Your task to perform on an android device: turn off priority inbox in the gmail app Image 0: 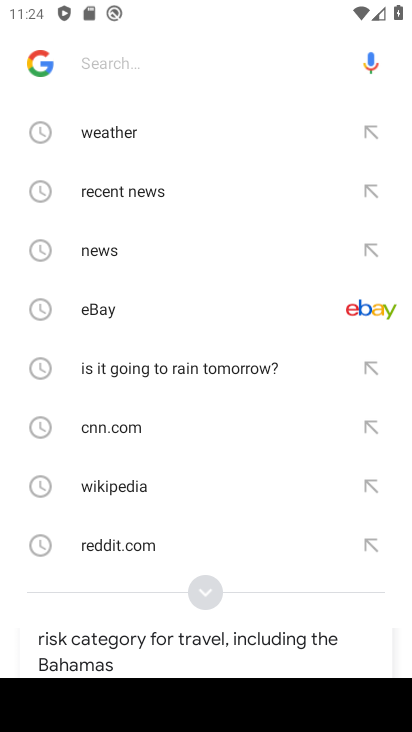
Step 0: press home button
Your task to perform on an android device: turn off priority inbox in the gmail app Image 1: 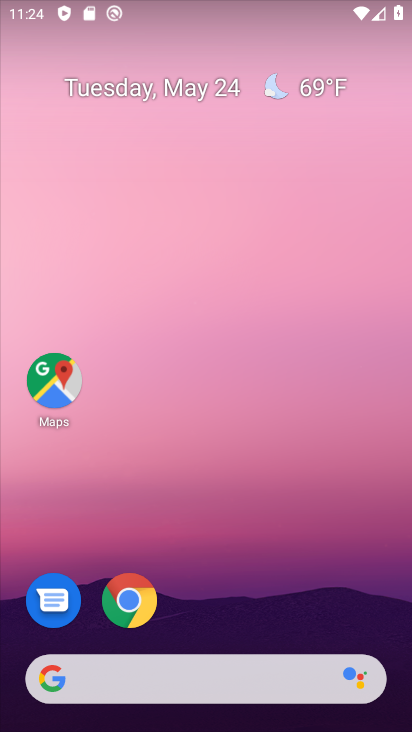
Step 1: drag from (385, 630) to (379, 198)
Your task to perform on an android device: turn off priority inbox in the gmail app Image 2: 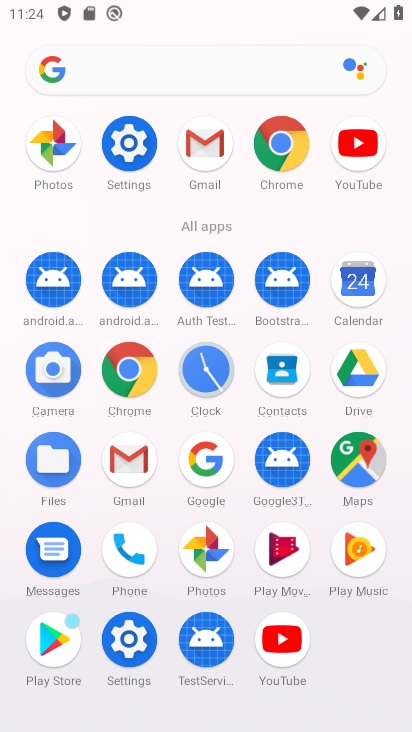
Step 2: click (128, 467)
Your task to perform on an android device: turn off priority inbox in the gmail app Image 3: 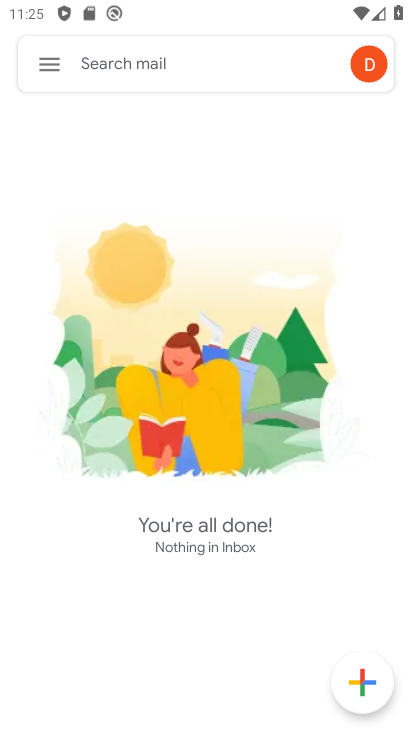
Step 3: click (53, 68)
Your task to perform on an android device: turn off priority inbox in the gmail app Image 4: 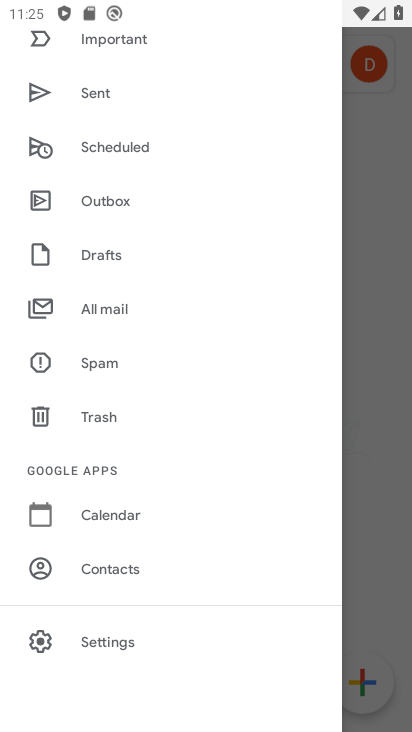
Step 4: click (186, 645)
Your task to perform on an android device: turn off priority inbox in the gmail app Image 5: 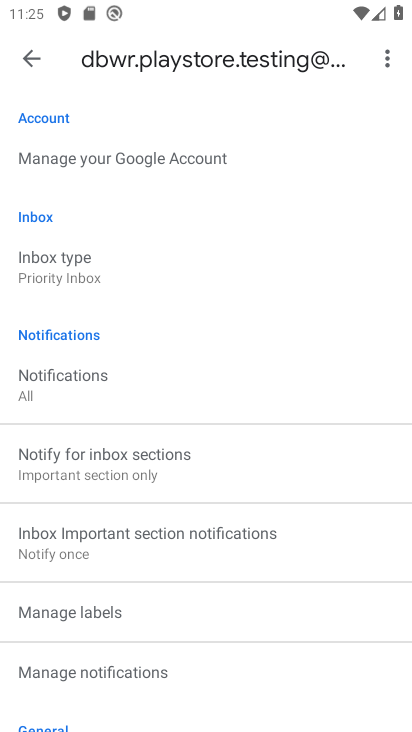
Step 5: task complete